Your task to perform on an android device: Go to settings Image 0: 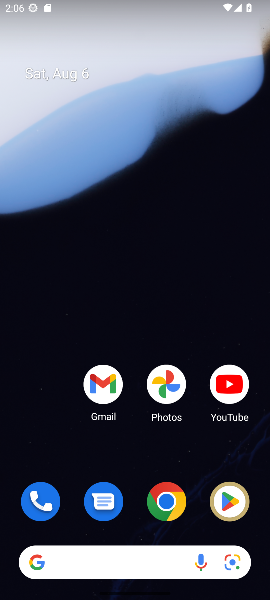
Step 0: press home button
Your task to perform on an android device: Go to settings Image 1: 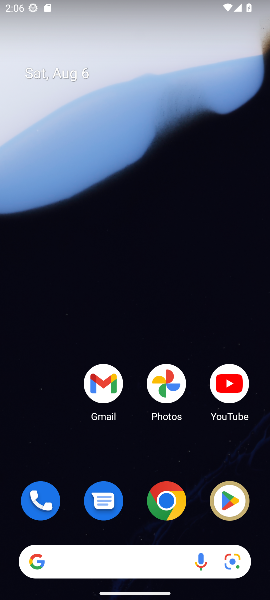
Step 1: drag from (134, 528) to (178, 129)
Your task to perform on an android device: Go to settings Image 2: 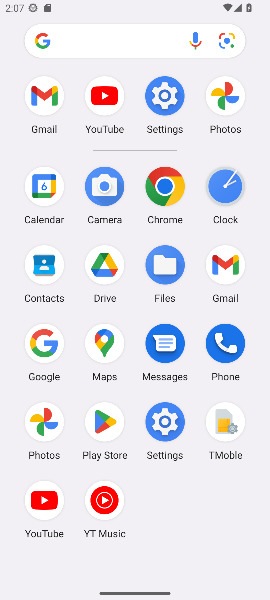
Step 2: click (168, 94)
Your task to perform on an android device: Go to settings Image 3: 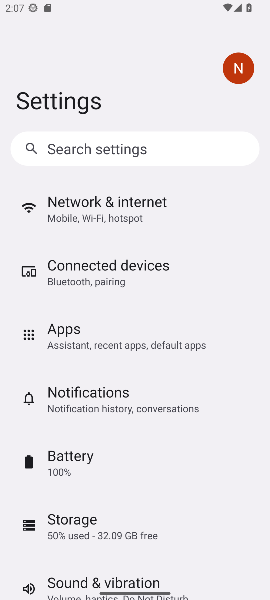
Step 3: task complete